Your task to perform on an android device: Do I have any events tomorrow? Image 0: 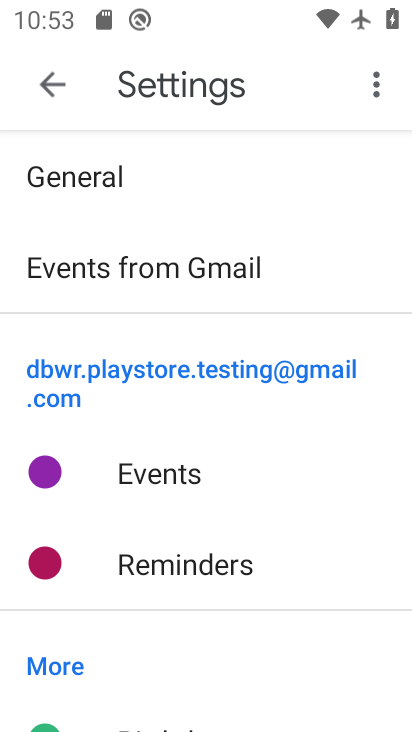
Step 0: press home button
Your task to perform on an android device: Do I have any events tomorrow? Image 1: 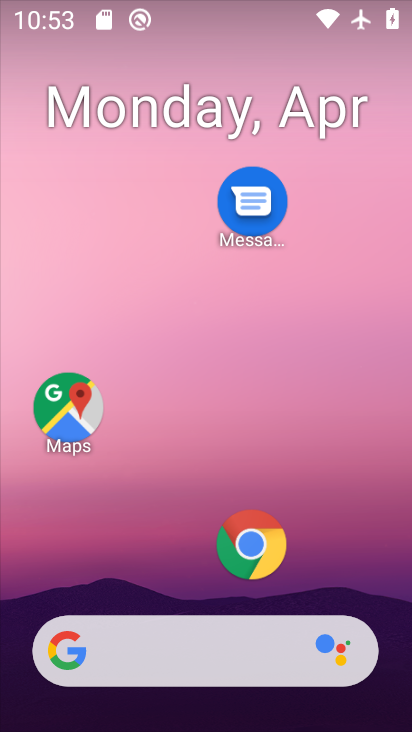
Step 1: drag from (180, 587) to (254, 163)
Your task to perform on an android device: Do I have any events tomorrow? Image 2: 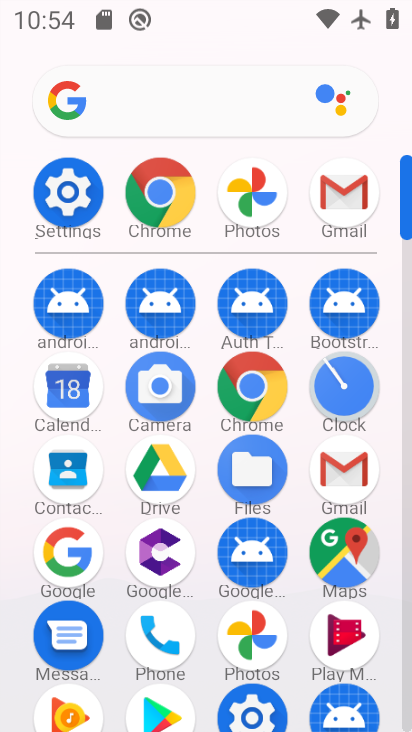
Step 2: click (74, 386)
Your task to perform on an android device: Do I have any events tomorrow? Image 3: 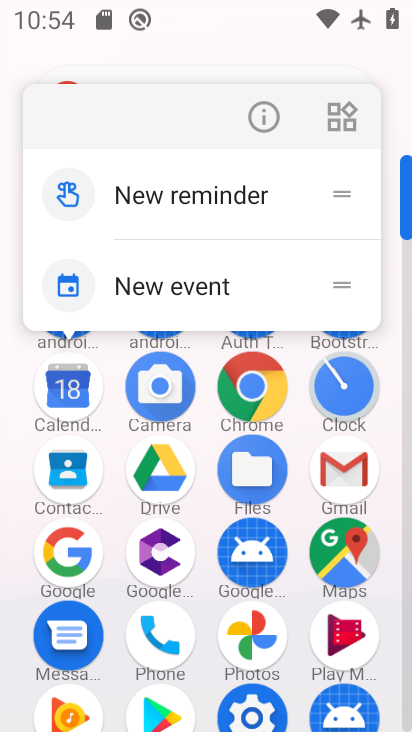
Step 3: click (70, 381)
Your task to perform on an android device: Do I have any events tomorrow? Image 4: 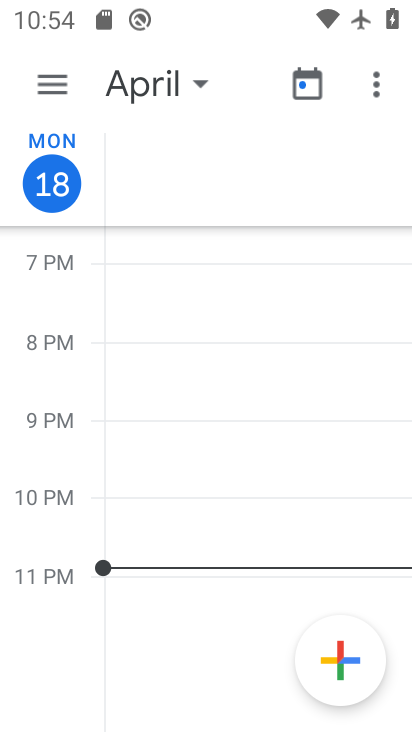
Step 4: click (48, 181)
Your task to perform on an android device: Do I have any events tomorrow? Image 5: 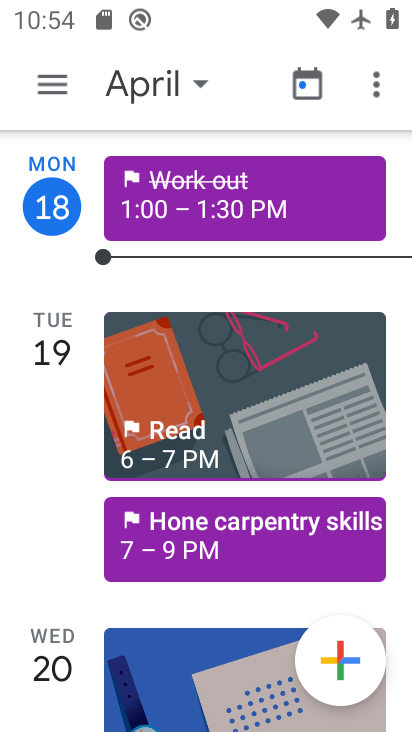
Step 5: click (34, 351)
Your task to perform on an android device: Do I have any events tomorrow? Image 6: 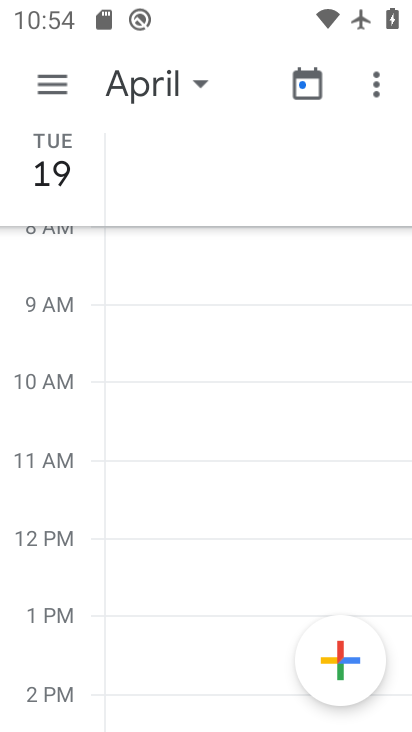
Step 6: task complete